Your task to perform on an android device: Show me recent news Image 0: 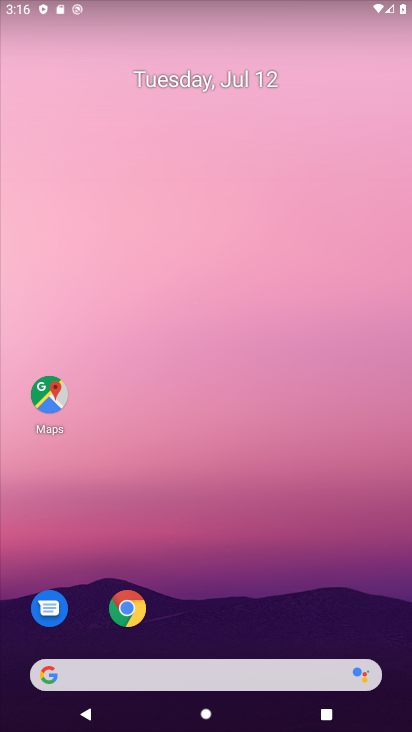
Step 0: drag from (10, 291) to (409, 294)
Your task to perform on an android device: Show me recent news Image 1: 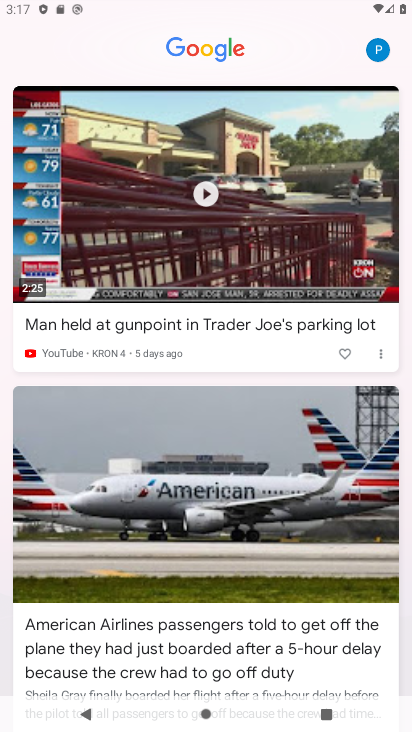
Step 1: task complete